Your task to perform on an android device: toggle location history Image 0: 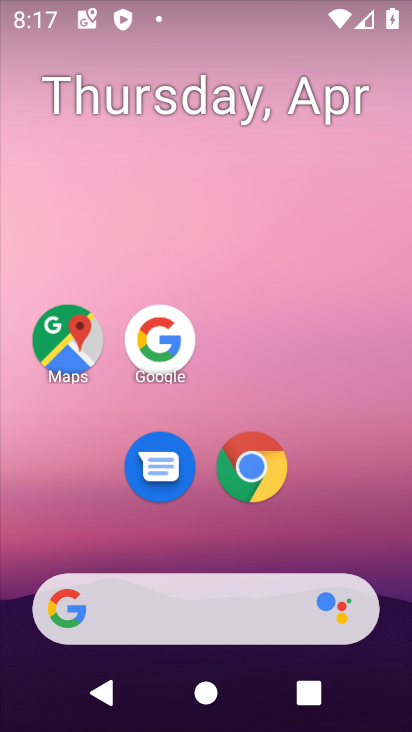
Step 0: drag from (244, 620) to (230, 10)
Your task to perform on an android device: toggle location history Image 1: 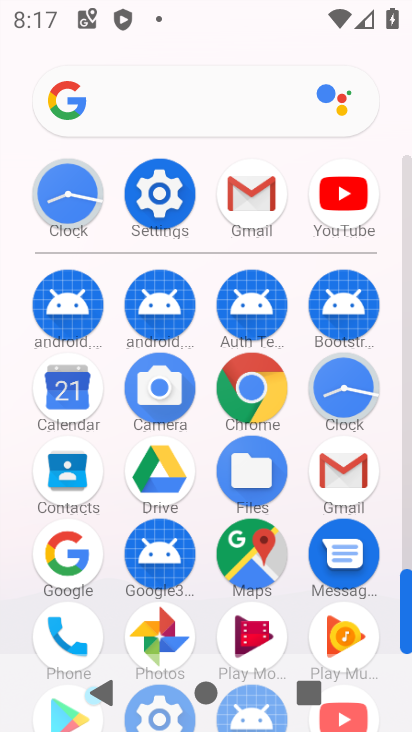
Step 1: click (169, 208)
Your task to perform on an android device: toggle location history Image 2: 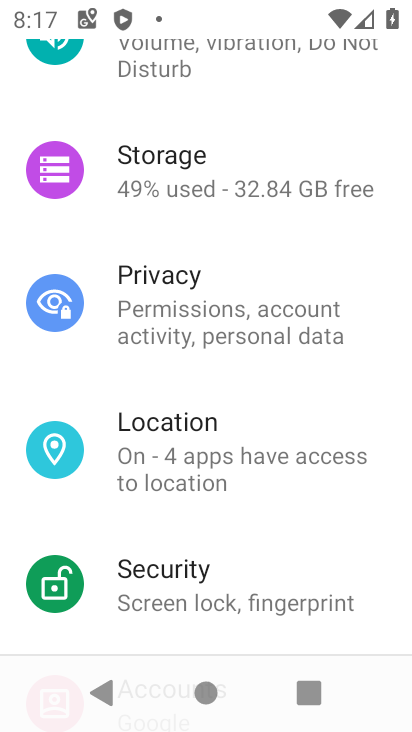
Step 2: click (255, 482)
Your task to perform on an android device: toggle location history Image 3: 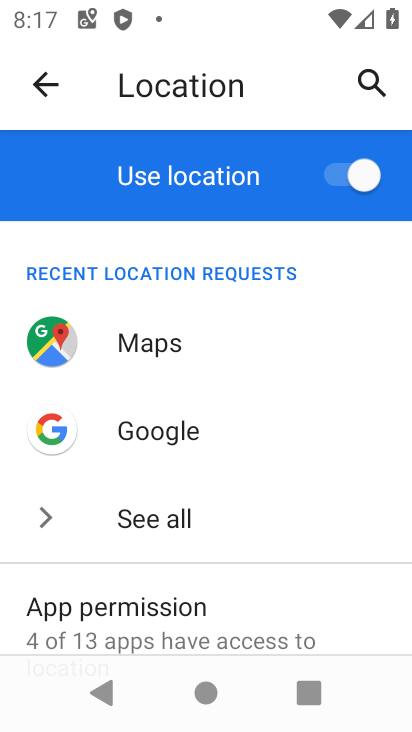
Step 3: drag from (234, 555) to (7, 13)
Your task to perform on an android device: toggle location history Image 4: 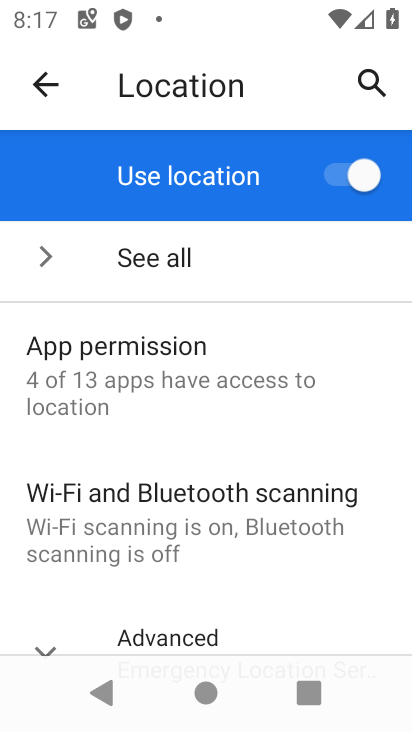
Step 4: drag from (275, 582) to (315, 49)
Your task to perform on an android device: toggle location history Image 5: 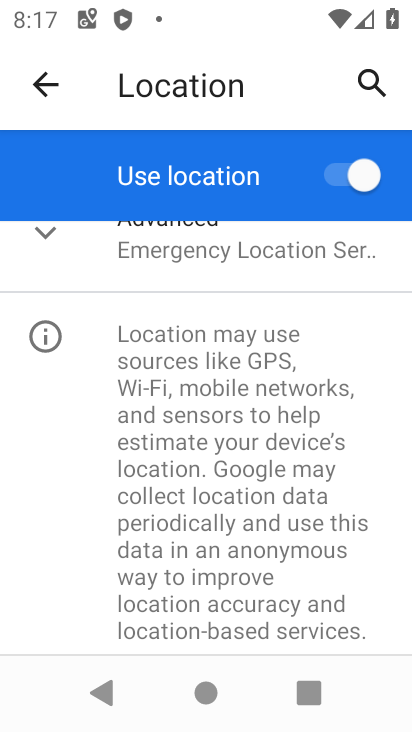
Step 5: click (218, 268)
Your task to perform on an android device: toggle location history Image 6: 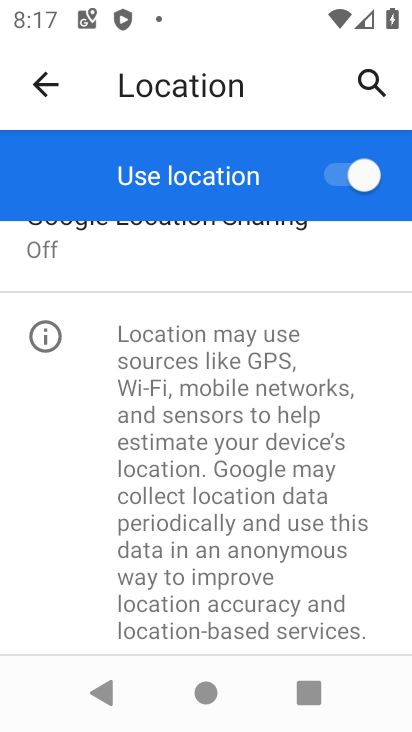
Step 6: drag from (132, 316) to (145, 594)
Your task to perform on an android device: toggle location history Image 7: 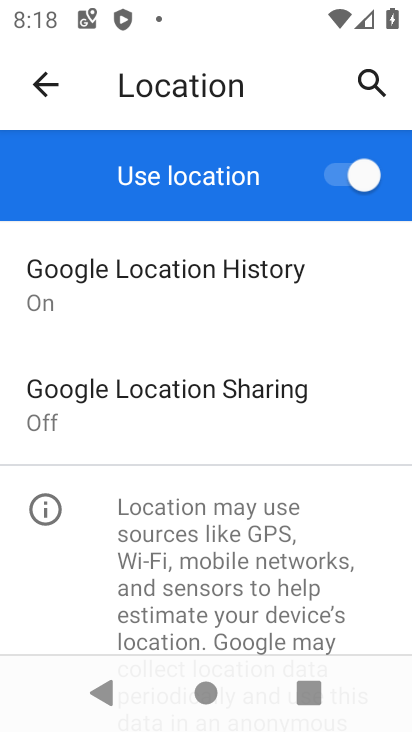
Step 7: click (212, 288)
Your task to perform on an android device: toggle location history Image 8: 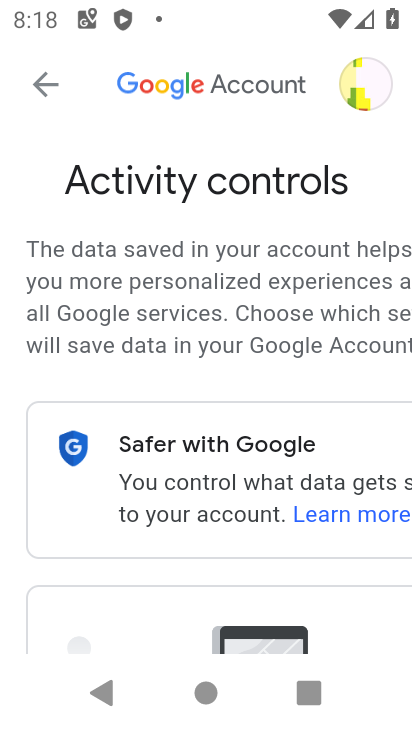
Step 8: drag from (261, 566) to (233, 69)
Your task to perform on an android device: toggle location history Image 9: 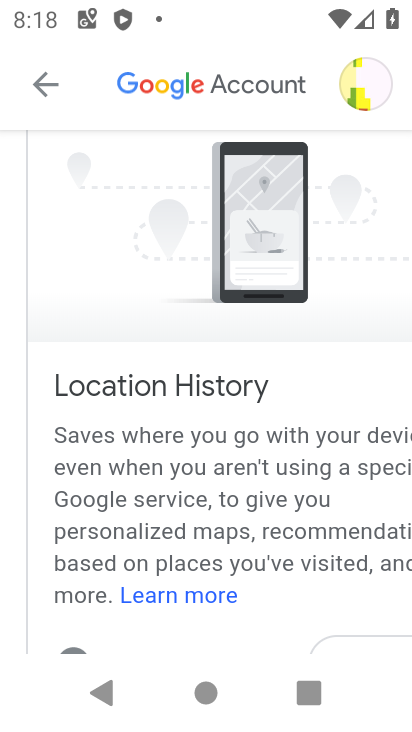
Step 9: drag from (325, 502) to (83, 118)
Your task to perform on an android device: toggle location history Image 10: 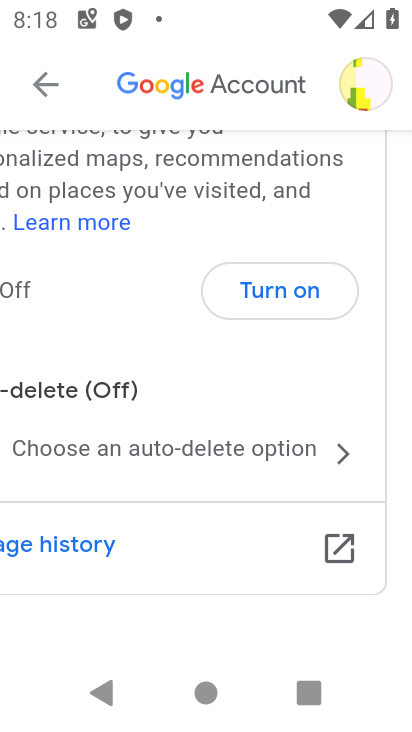
Step 10: click (311, 285)
Your task to perform on an android device: toggle location history Image 11: 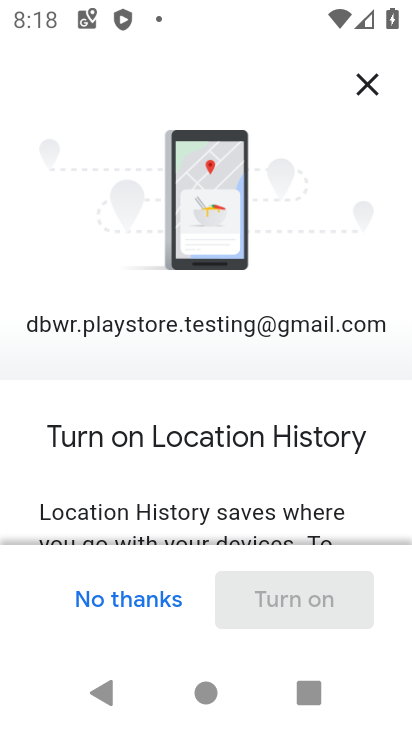
Step 11: drag from (266, 490) to (228, 5)
Your task to perform on an android device: toggle location history Image 12: 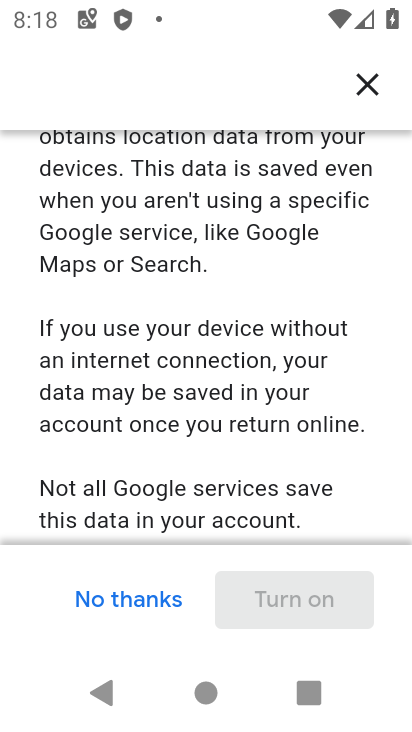
Step 12: drag from (267, 476) to (193, 37)
Your task to perform on an android device: toggle location history Image 13: 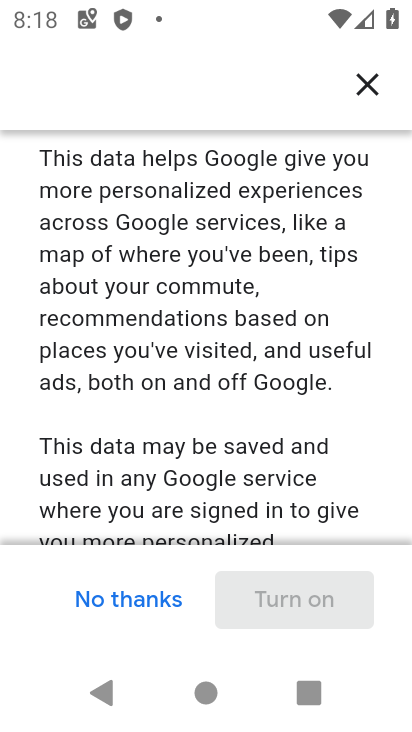
Step 13: drag from (221, 510) to (153, 37)
Your task to perform on an android device: toggle location history Image 14: 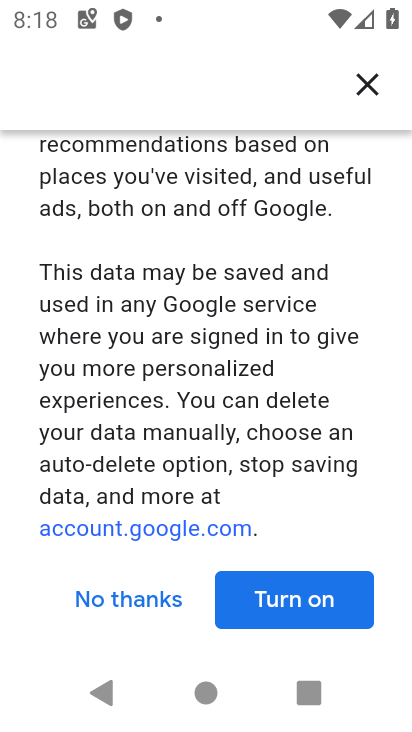
Step 14: click (290, 583)
Your task to perform on an android device: toggle location history Image 15: 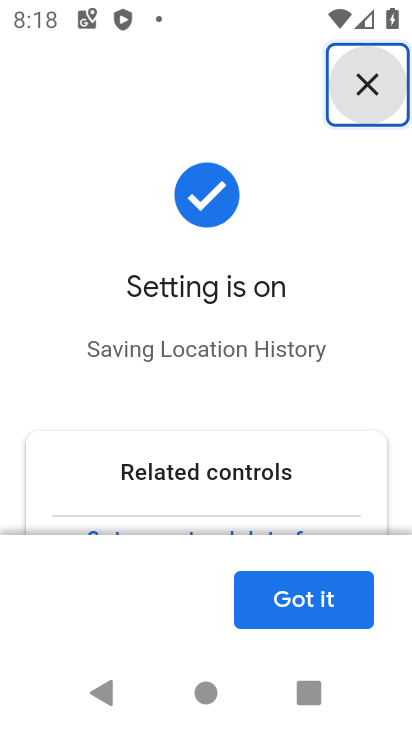
Step 15: click (329, 597)
Your task to perform on an android device: toggle location history Image 16: 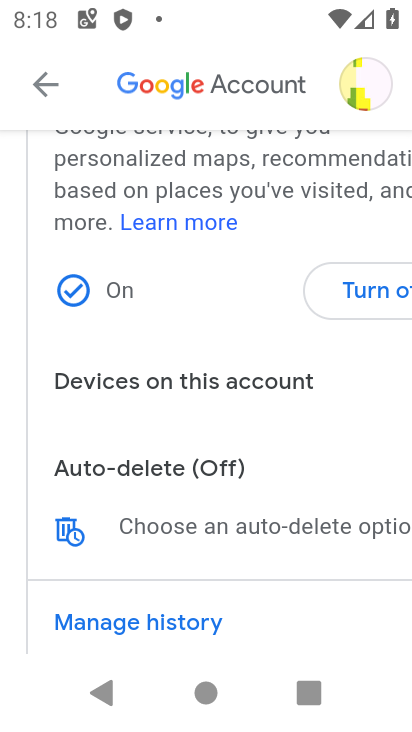
Step 16: task complete